Your task to perform on an android device: allow cookies in the chrome app Image 0: 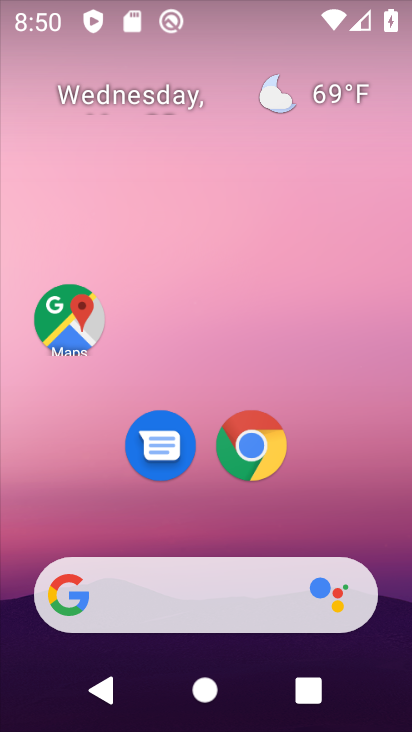
Step 0: click (258, 443)
Your task to perform on an android device: allow cookies in the chrome app Image 1: 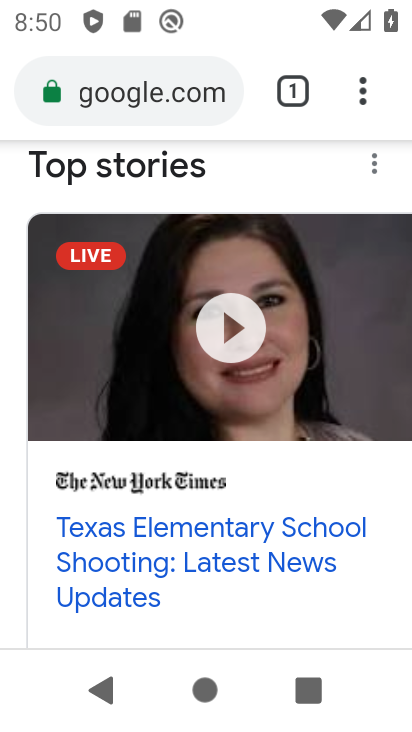
Step 1: drag from (360, 88) to (158, 491)
Your task to perform on an android device: allow cookies in the chrome app Image 2: 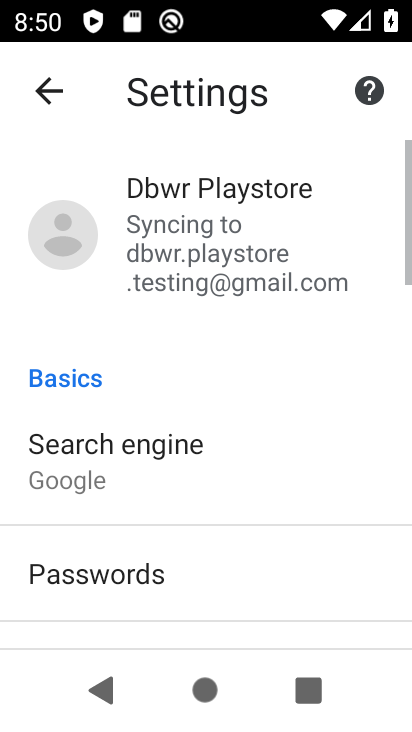
Step 2: drag from (290, 595) to (291, 172)
Your task to perform on an android device: allow cookies in the chrome app Image 3: 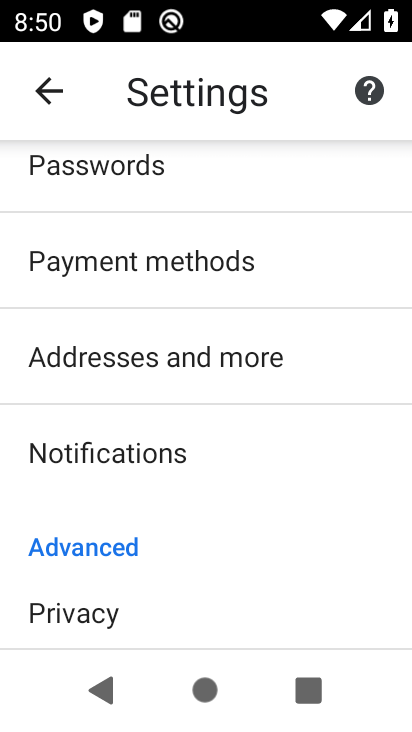
Step 3: drag from (210, 599) to (209, 271)
Your task to perform on an android device: allow cookies in the chrome app Image 4: 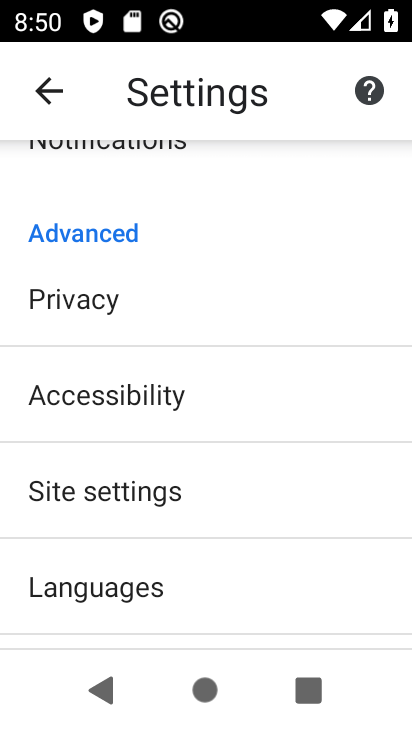
Step 4: click (149, 487)
Your task to perform on an android device: allow cookies in the chrome app Image 5: 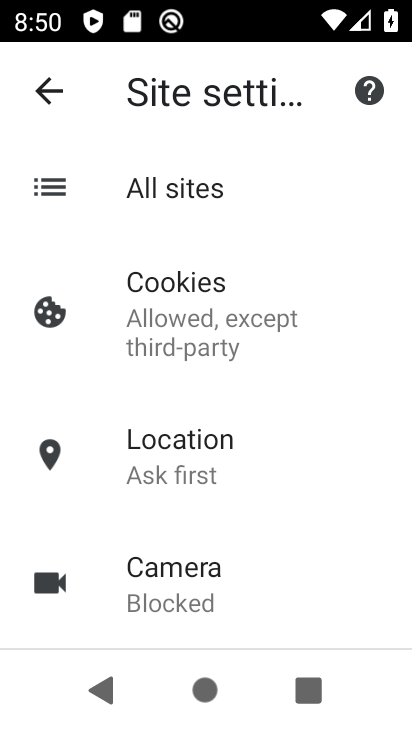
Step 5: click (170, 295)
Your task to perform on an android device: allow cookies in the chrome app Image 6: 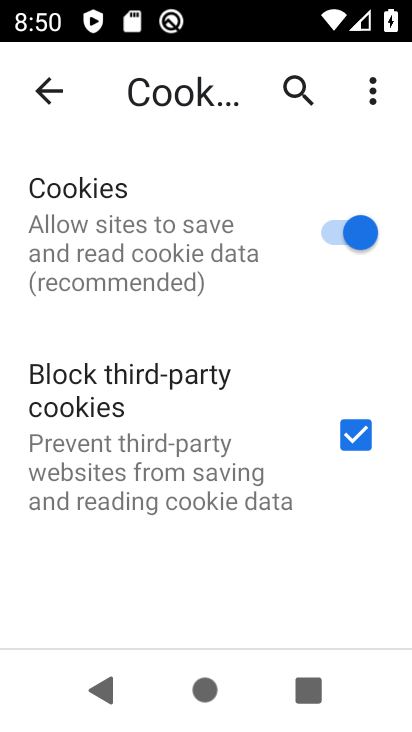
Step 6: task complete